Your task to perform on an android device: search for starred emails in the gmail app Image 0: 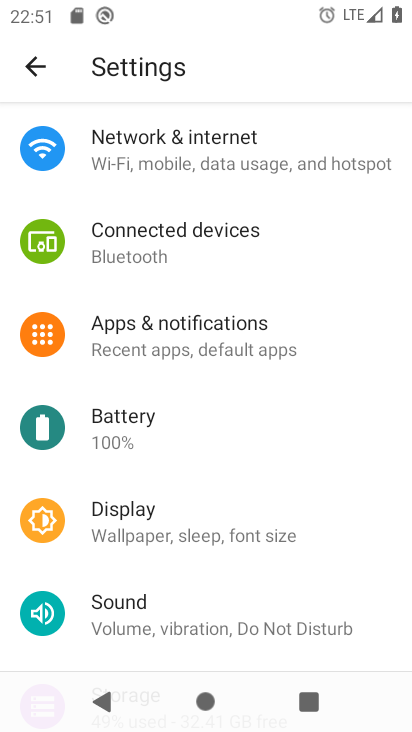
Step 0: press home button
Your task to perform on an android device: search for starred emails in the gmail app Image 1: 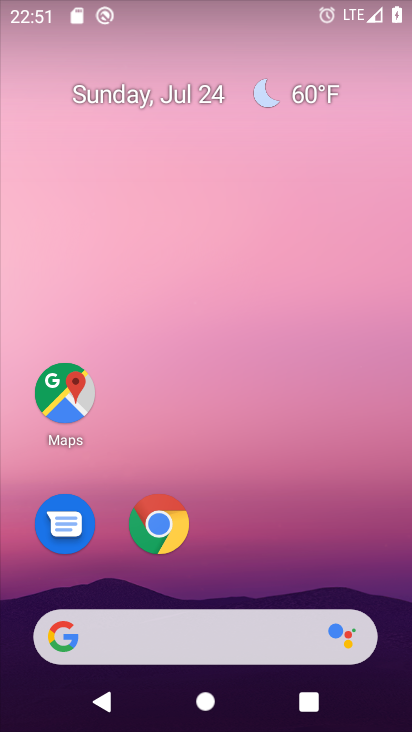
Step 1: drag from (255, 571) to (306, 290)
Your task to perform on an android device: search for starred emails in the gmail app Image 2: 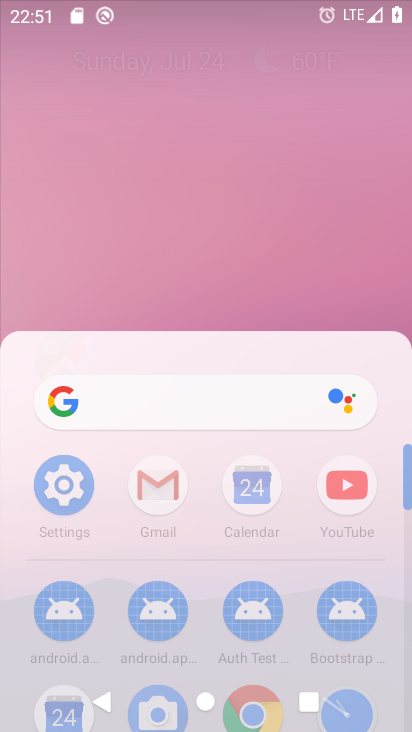
Step 2: drag from (323, 209) to (337, 96)
Your task to perform on an android device: search for starred emails in the gmail app Image 3: 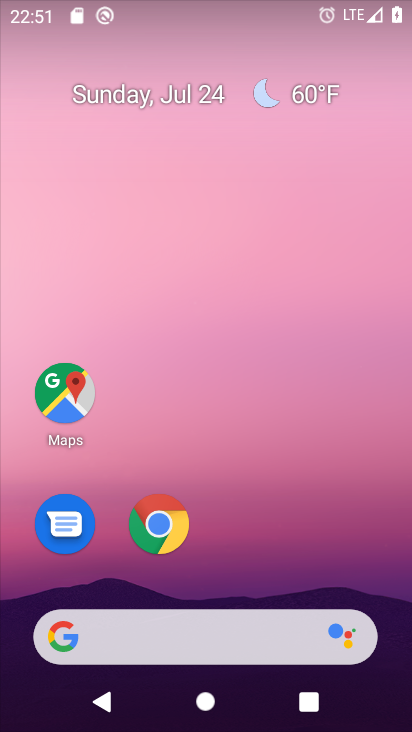
Step 3: drag from (222, 564) to (298, 16)
Your task to perform on an android device: search for starred emails in the gmail app Image 4: 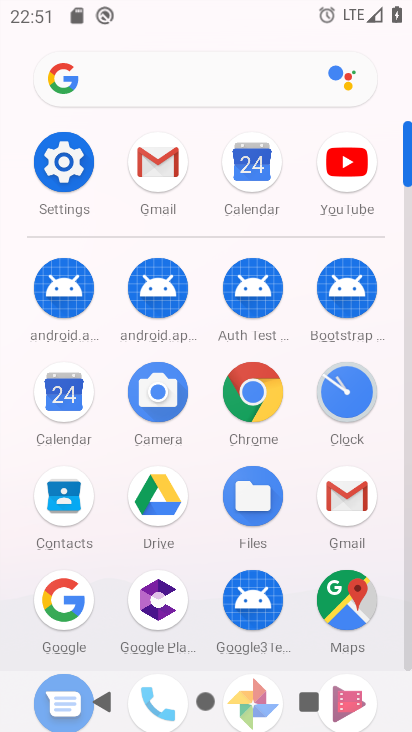
Step 4: click (174, 170)
Your task to perform on an android device: search for starred emails in the gmail app Image 5: 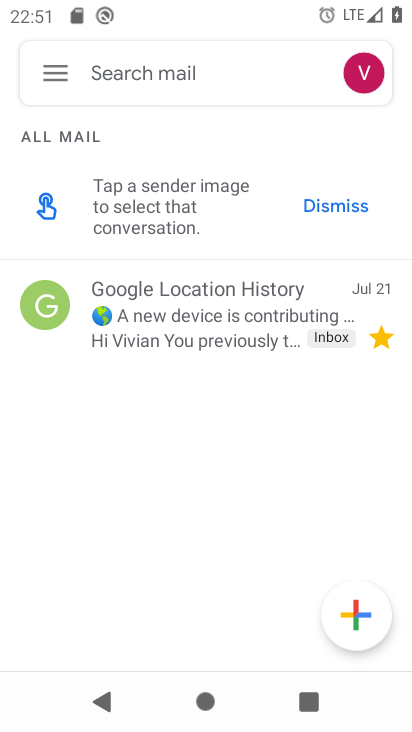
Step 5: click (60, 72)
Your task to perform on an android device: search for starred emails in the gmail app Image 6: 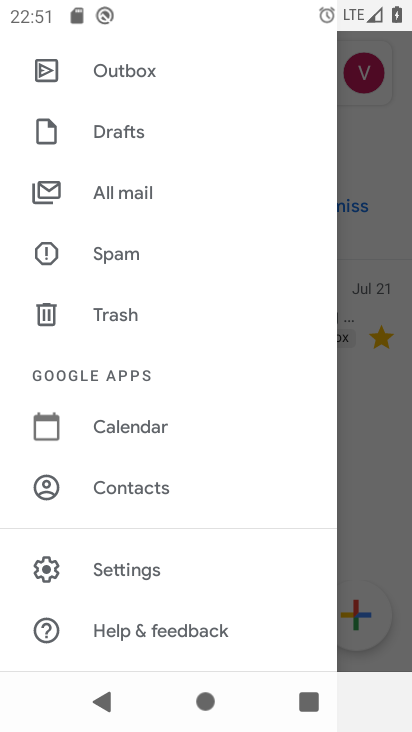
Step 6: drag from (175, 83) to (165, 724)
Your task to perform on an android device: search for starred emails in the gmail app Image 7: 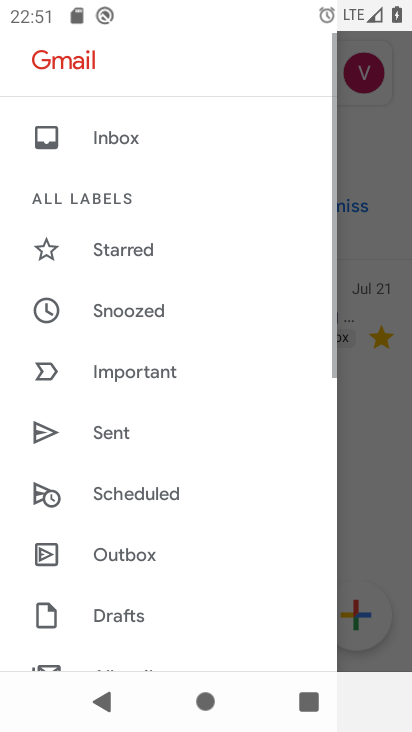
Step 7: click (141, 244)
Your task to perform on an android device: search for starred emails in the gmail app Image 8: 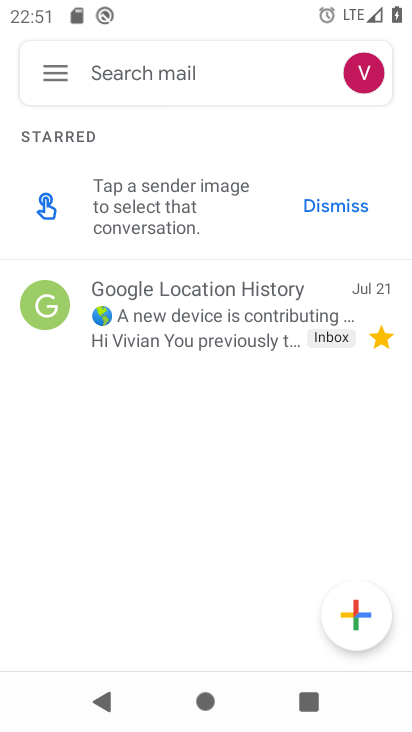
Step 8: task complete